Your task to perform on an android device: Open settings Image 0: 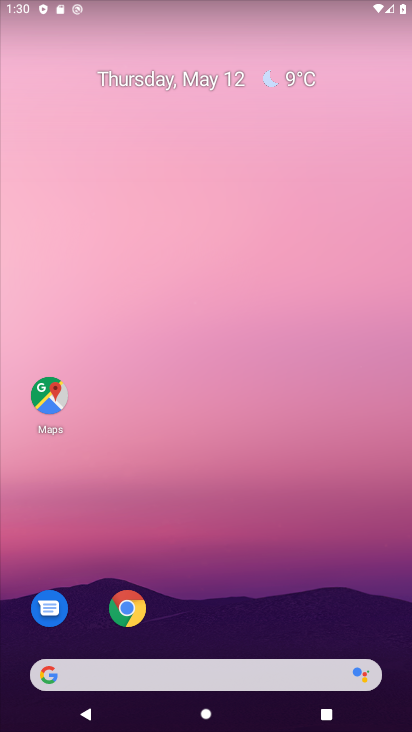
Step 0: drag from (221, 629) to (177, 55)
Your task to perform on an android device: Open settings Image 1: 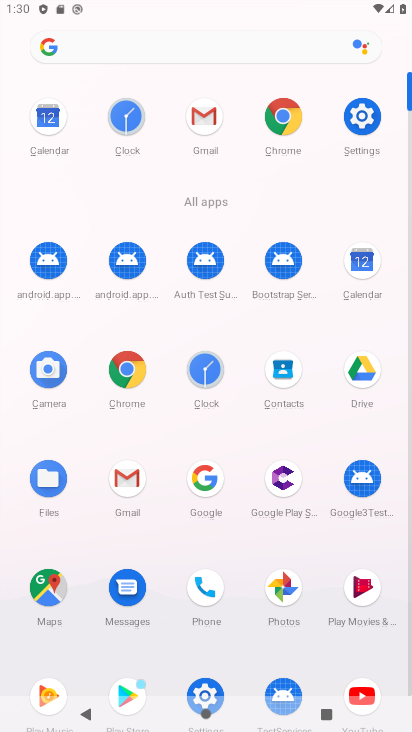
Step 1: click (371, 121)
Your task to perform on an android device: Open settings Image 2: 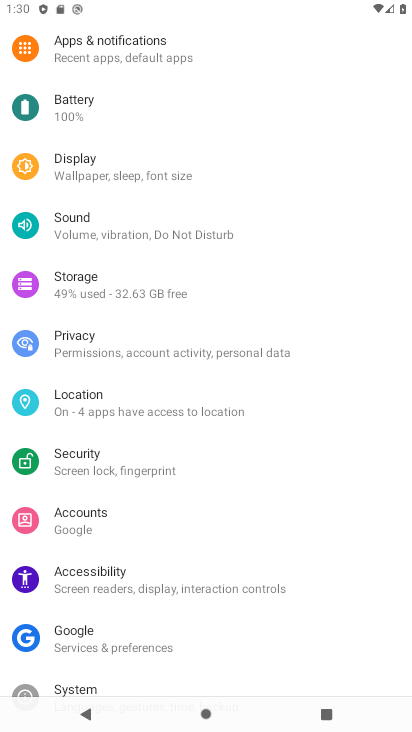
Step 2: task complete